Your task to perform on an android device: Open battery settings Image 0: 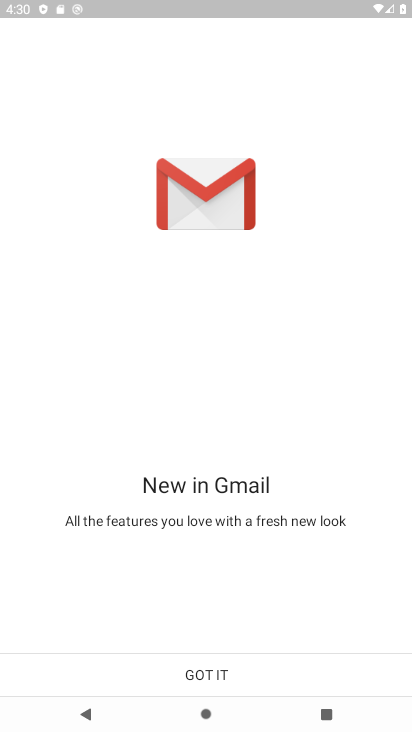
Step 0: click (210, 665)
Your task to perform on an android device: Open battery settings Image 1: 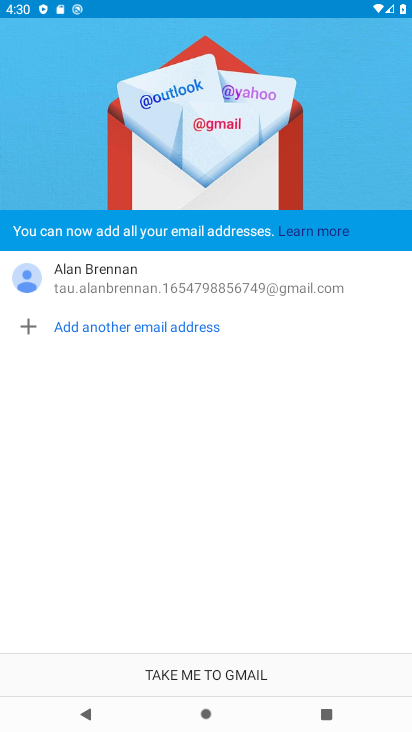
Step 1: click (211, 680)
Your task to perform on an android device: Open battery settings Image 2: 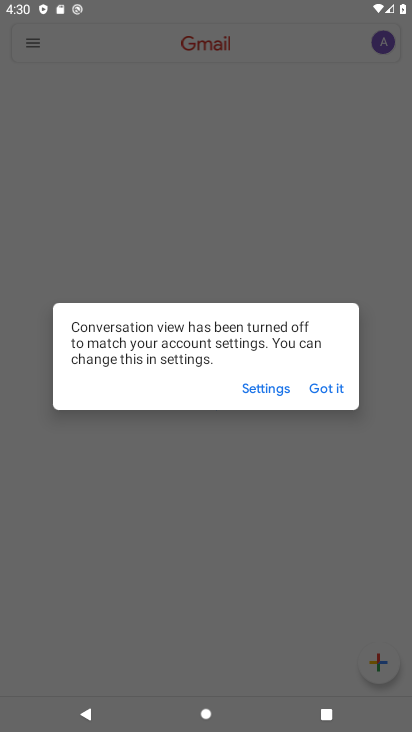
Step 2: press home button
Your task to perform on an android device: Open battery settings Image 3: 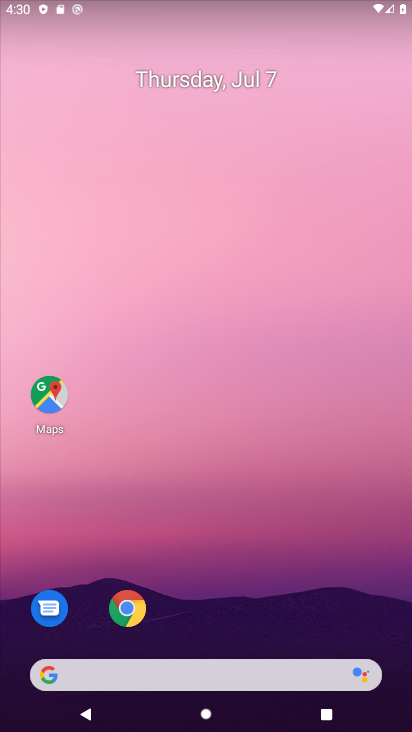
Step 3: drag from (222, 644) to (215, 29)
Your task to perform on an android device: Open battery settings Image 4: 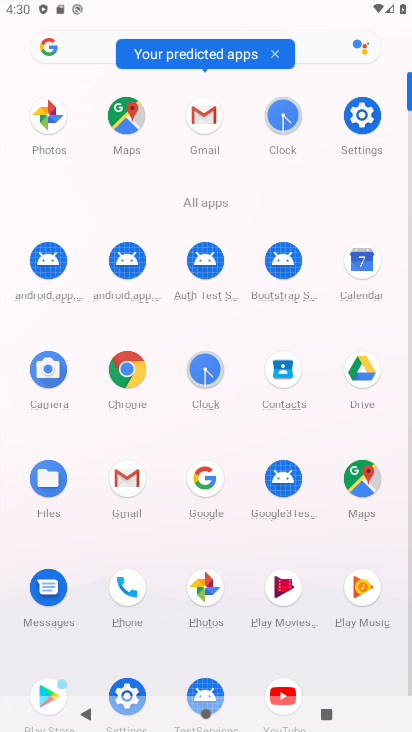
Step 4: click (362, 112)
Your task to perform on an android device: Open battery settings Image 5: 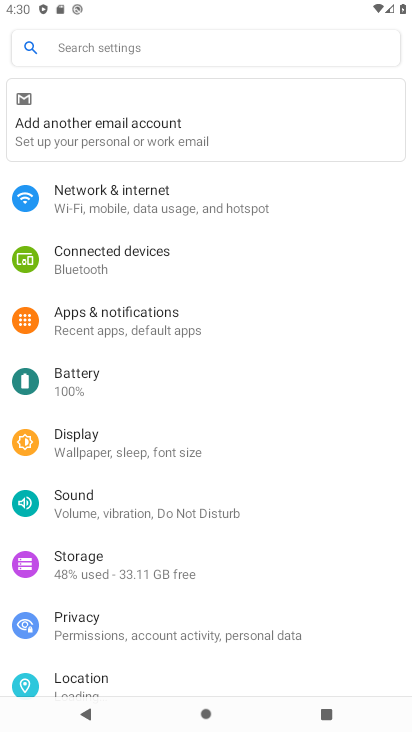
Step 5: click (115, 378)
Your task to perform on an android device: Open battery settings Image 6: 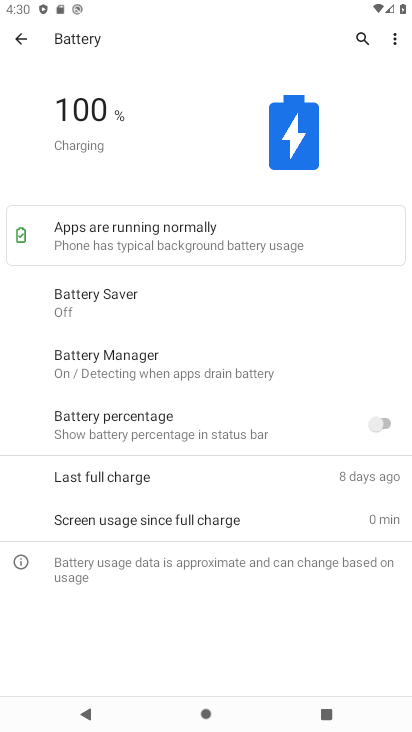
Step 6: task complete